Your task to perform on an android device: Open CNN.com Image 0: 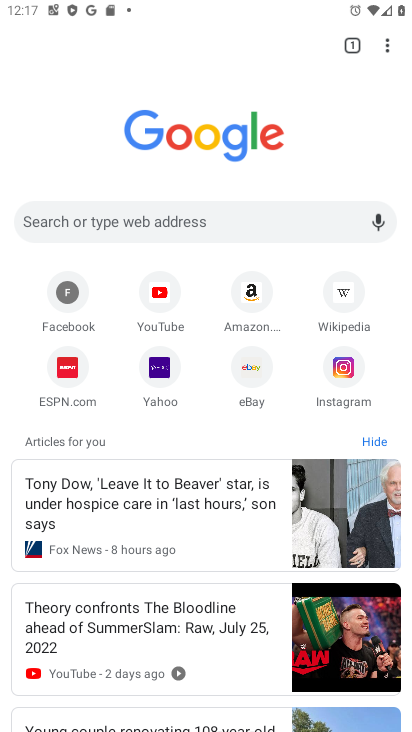
Step 0: click (246, 215)
Your task to perform on an android device: Open CNN.com Image 1: 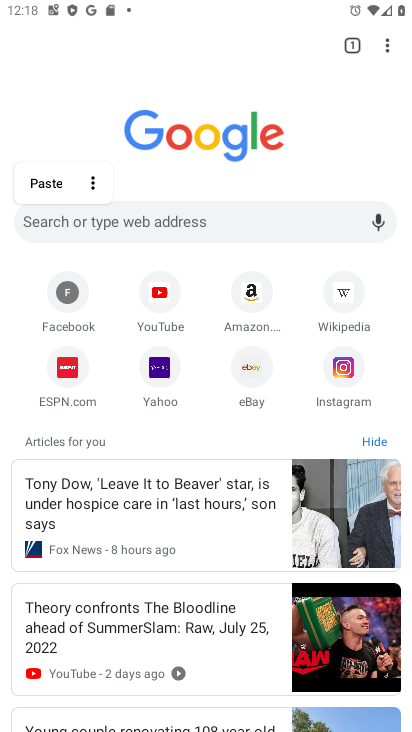
Step 1: type "cnn.com"
Your task to perform on an android device: Open CNN.com Image 2: 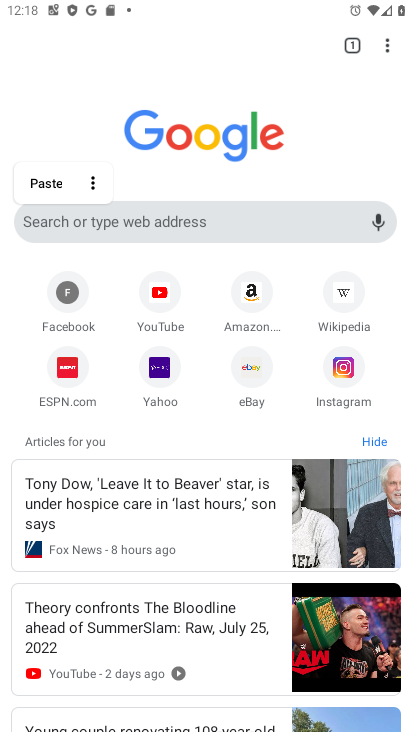
Step 2: click (313, 222)
Your task to perform on an android device: Open CNN.com Image 3: 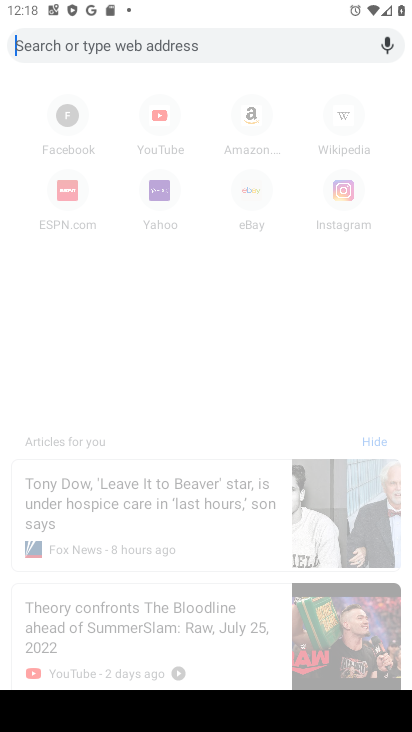
Step 3: type "cnn.com"
Your task to perform on an android device: Open CNN.com Image 4: 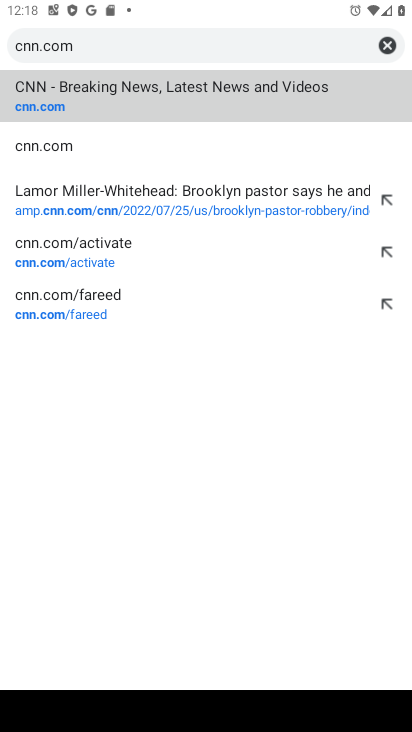
Step 4: click (178, 75)
Your task to perform on an android device: Open CNN.com Image 5: 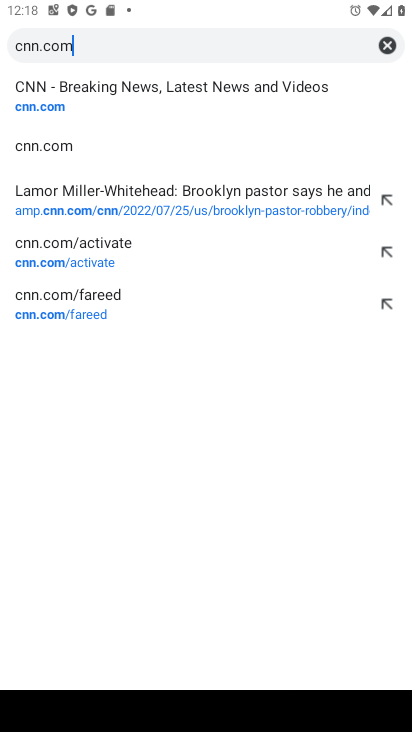
Step 5: click (125, 92)
Your task to perform on an android device: Open CNN.com Image 6: 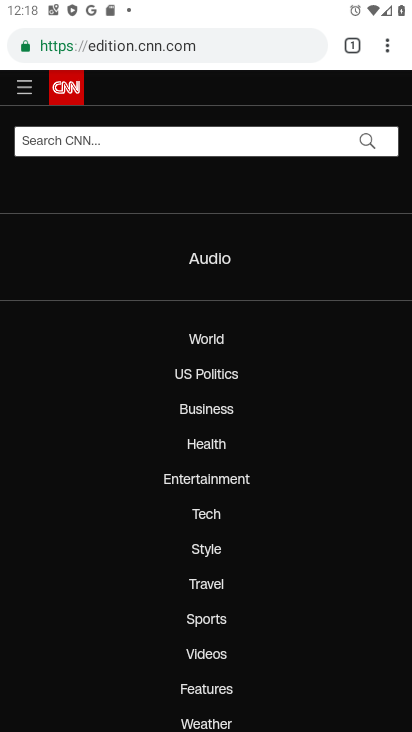
Step 6: task complete